Your task to perform on an android device: turn off smart reply in the gmail app Image 0: 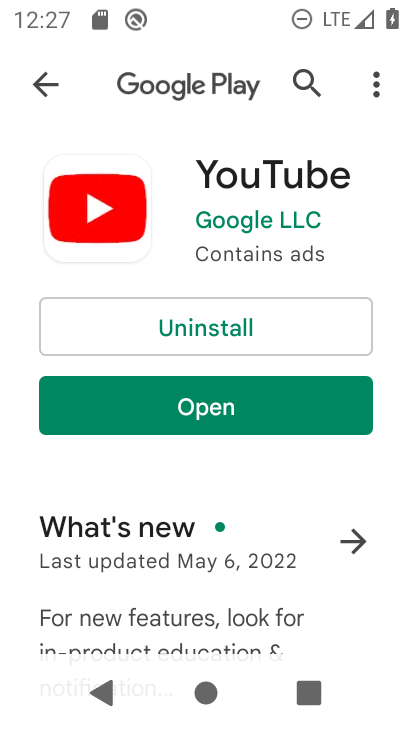
Step 0: press back button
Your task to perform on an android device: turn off smart reply in the gmail app Image 1: 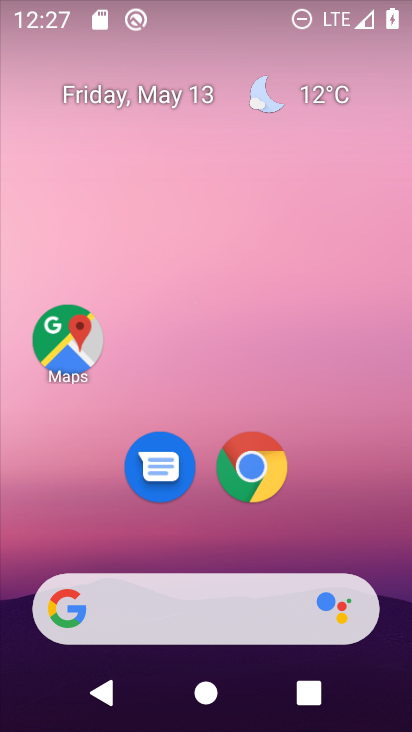
Step 1: drag from (325, 499) to (242, 78)
Your task to perform on an android device: turn off smart reply in the gmail app Image 2: 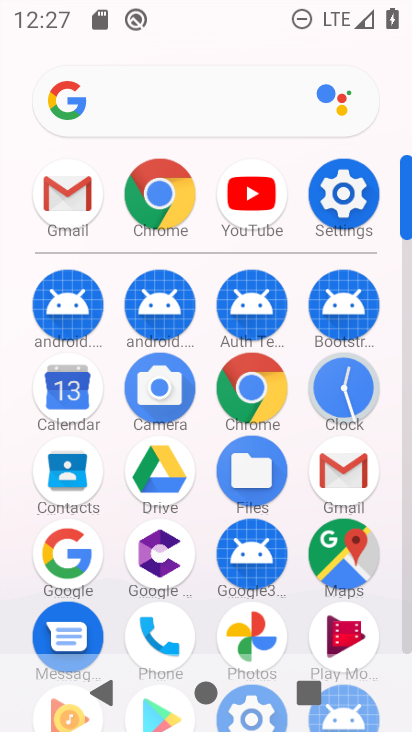
Step 2: click (69, 190)
Your task to perform on an android device: turn off smart reply in the gmail app Image 3: 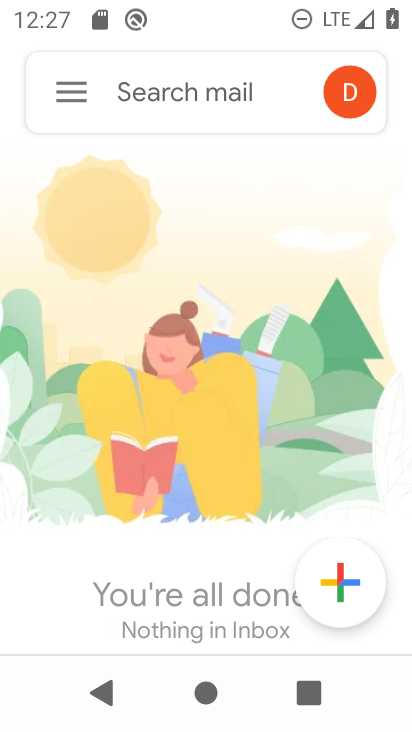
Step 3: click (79, 73)
Your task to perform on an android device: turn off smart reply in the gmail app Image 4: 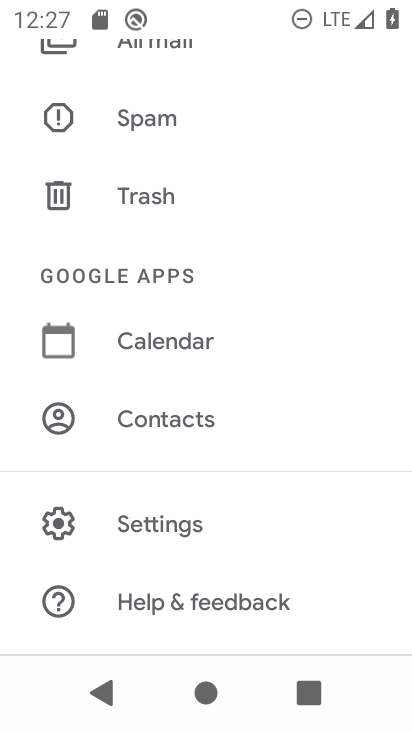
Step 4: click (165, 508)
Your task to perform on an android device: turn off smart reply in the gmail app Image 5: 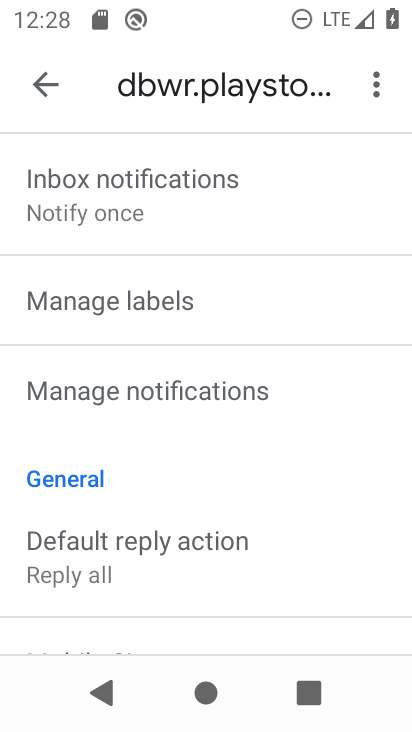
Step 5: click (177, 375)
Your task to perform on an android device: turn off smart reply in the gmail app Image 6: 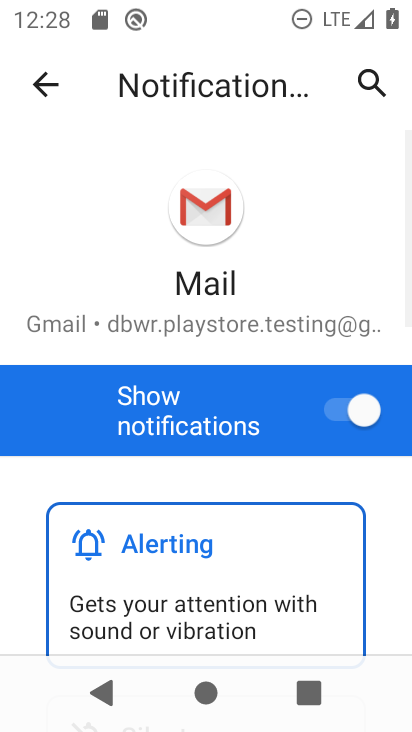
Step 6: drag from (206, 524) to (227, 204)
Your task to perform on an android device: turn off smart reply in the gmail app Image 7: 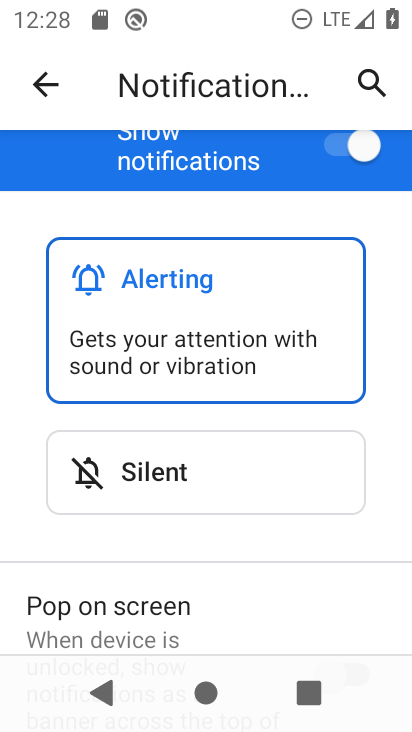
Step 7: drag from (238, 506) to (237, 112)
Your task to perform on an android device: turn off smart reply in the gmail app Image 8: 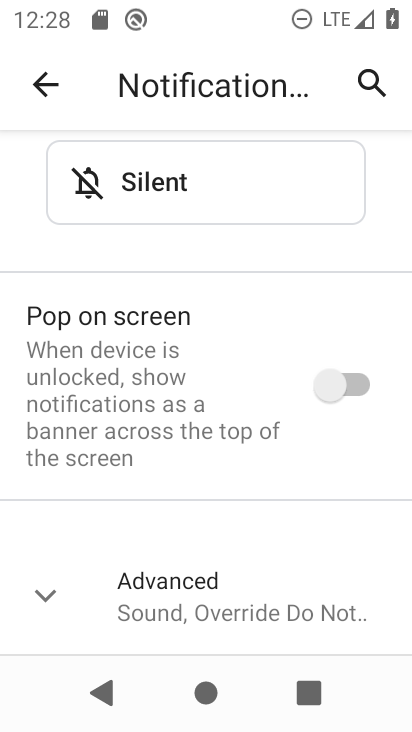
Step 8: click (59, 599)
Your task to perform on an android device: turn off smart reply in the gmail app Image 9: 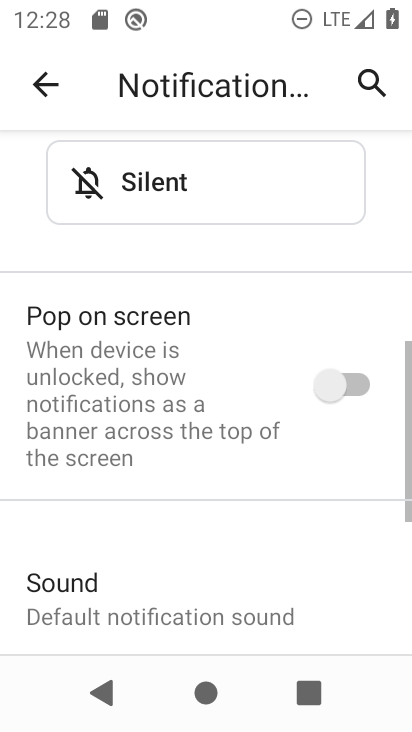
Step 9: drag from (210, 550) to (215, 175)
Your task to perform on an android device: turn off smart reply in the gmail app Image 10: 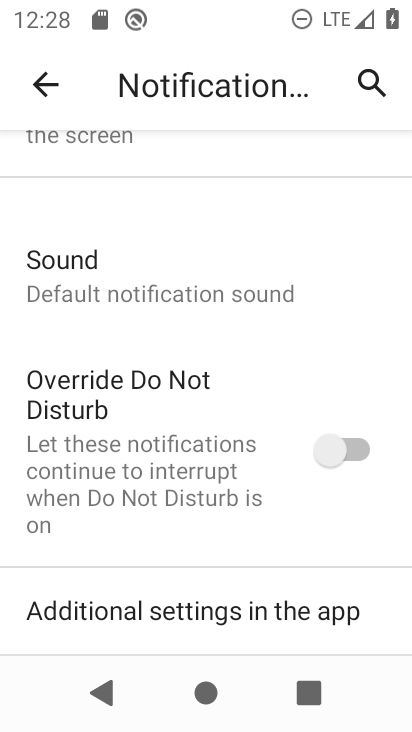
Step 10: drag from (188, 518) to (224, 170)
Your task to perform on an android device: turn off smart reply in the gmail app Image 11: 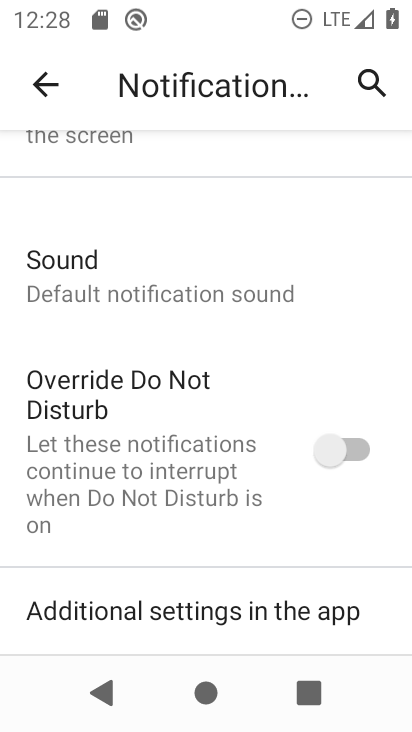
Step 11: drag from (211, 224) to (206, 601)
Your task to perform on an android device: turn off smart reply in the gmail app Image 12: 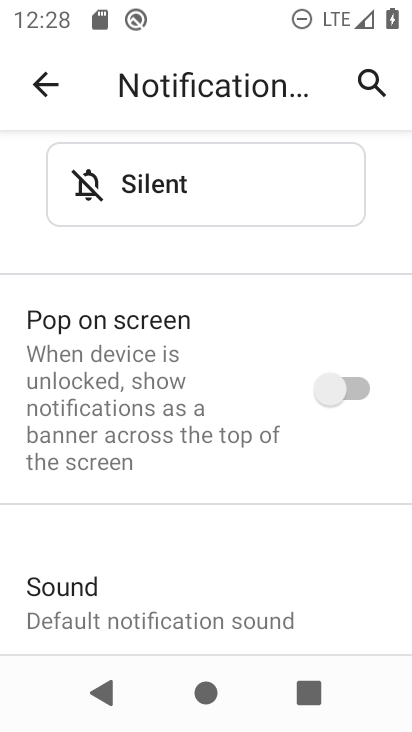
Step 12: drag from (204, 310) to (206, 645)
Your task to perform on an android device: turn off smart reply in the gmail app Image 13: 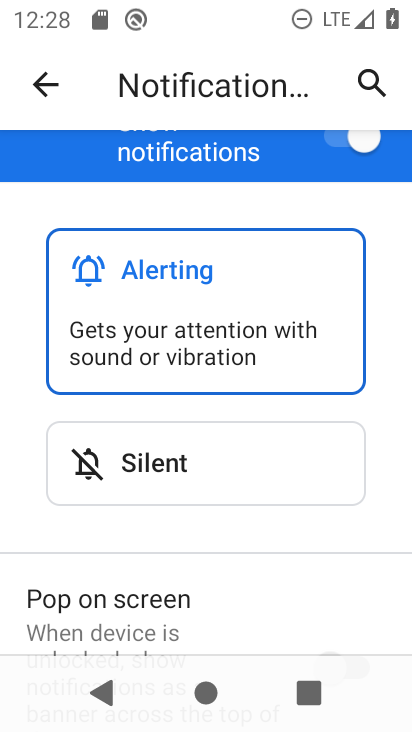
Step 13: drag from (224, 314) to (224, 606)
Your task to perform on an android device: turn off smart reply in the gmail app Image 14: 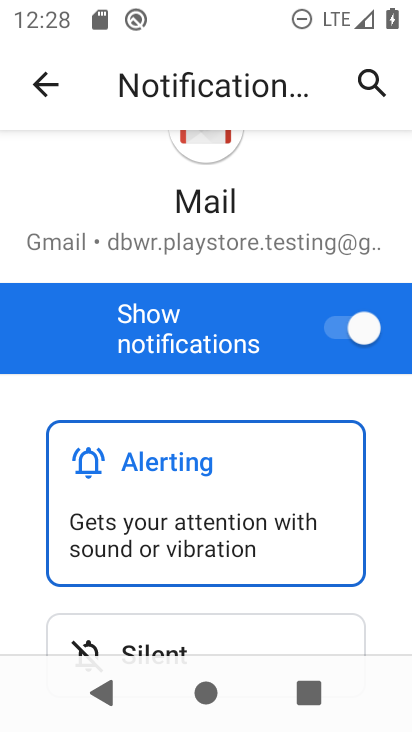
Step 14: drag from (237, 558) to (272, 152)
Your task to perform on an android device: turn off smart reply in the gmail app Image 15: 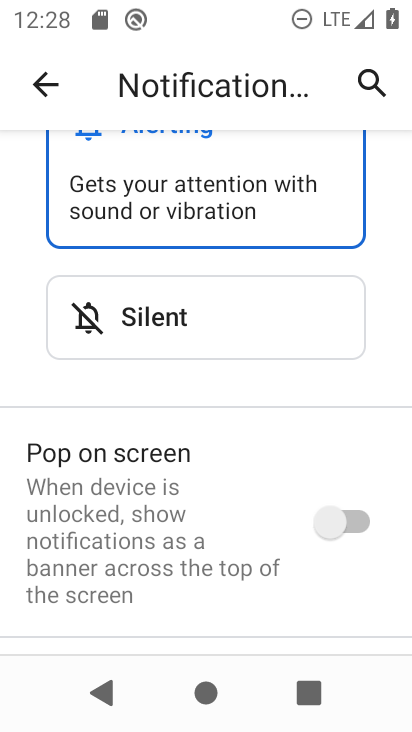
Step 15: drag from (253, 536) to (259, 137)
Your task to perform on an android device: turn off smart reply in the gmail app Image 16: 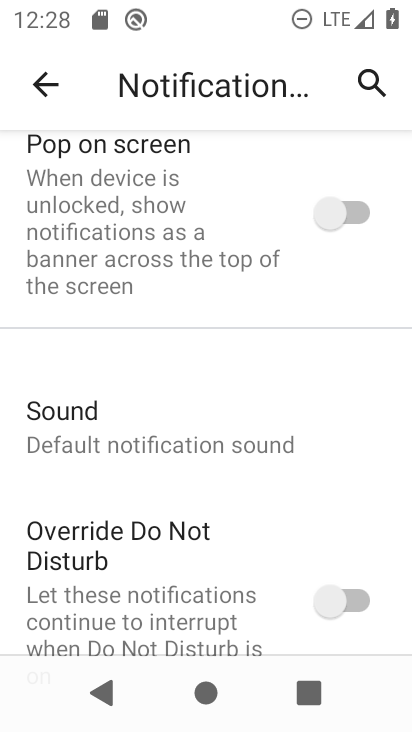
Step 16: click (50, 73)
Your task to perform on an android device: turn off smart reply in the gmail app Image 17: 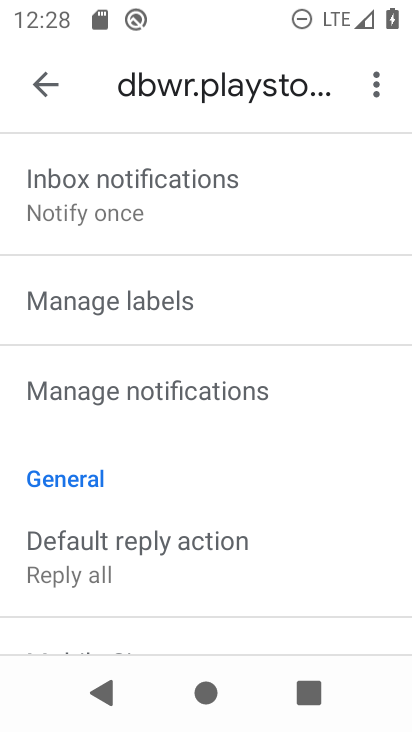
Step 17: drag from (262, 548) to (255, 101)
Your task to perform on an android device: turn off smart reply in the gmail app Image 18: 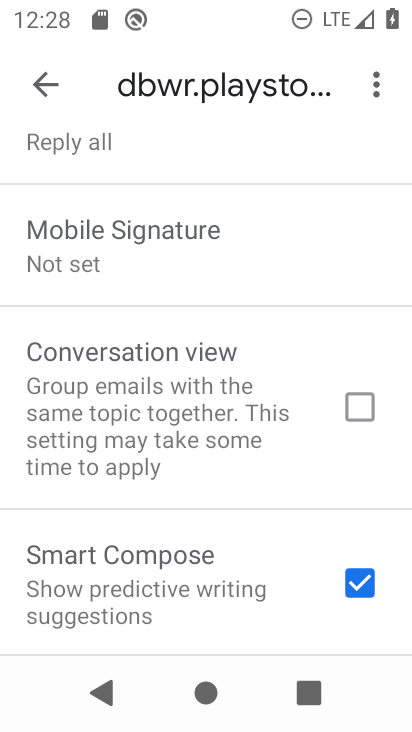
Step 18: drag from (220, 544) to (221, 178)
Your task to perform on an android device: turn off smart reply in the gmail app Image 19: 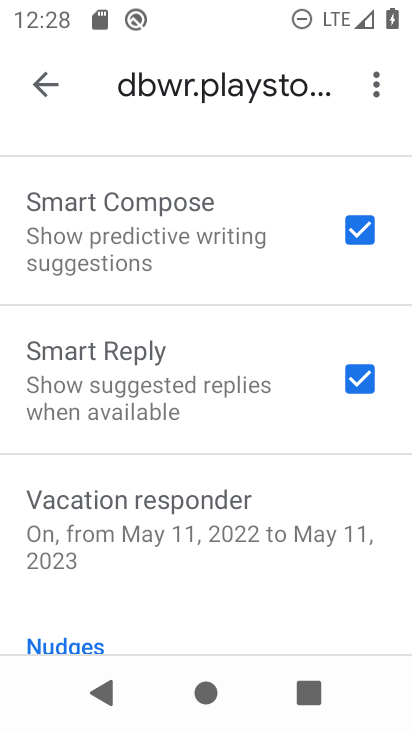
Step 19: click (362, 378)
Your task to perform on an android device: turn off smart reply in the gmail app Image 20: 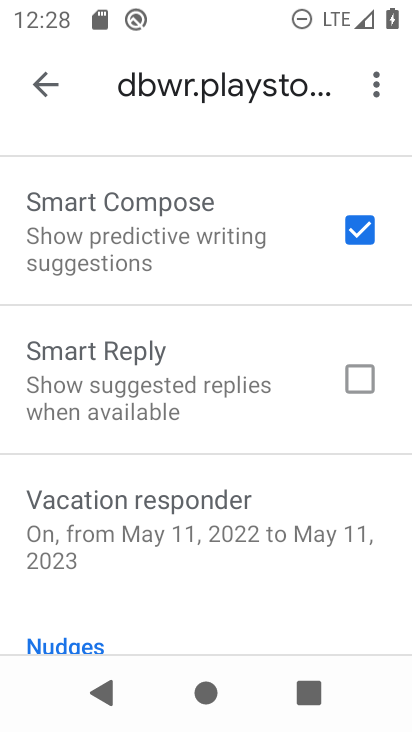
Step 20: task complete